Your task to perform on an android device: turn off airplane mode Image 0: 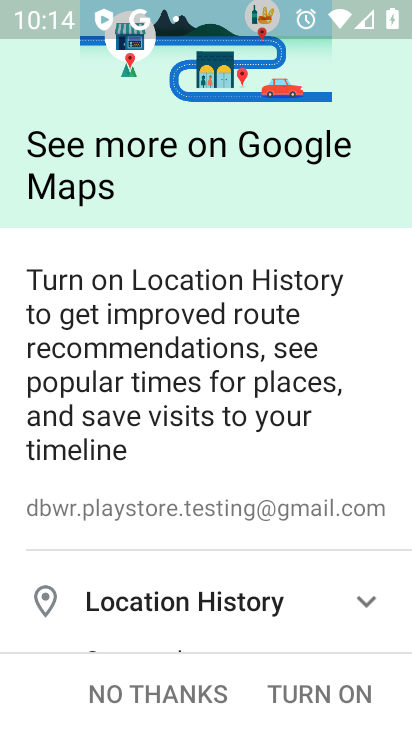
Step 0: press home button
Your task to perform on an android device: turn off airplane mode Image 1: 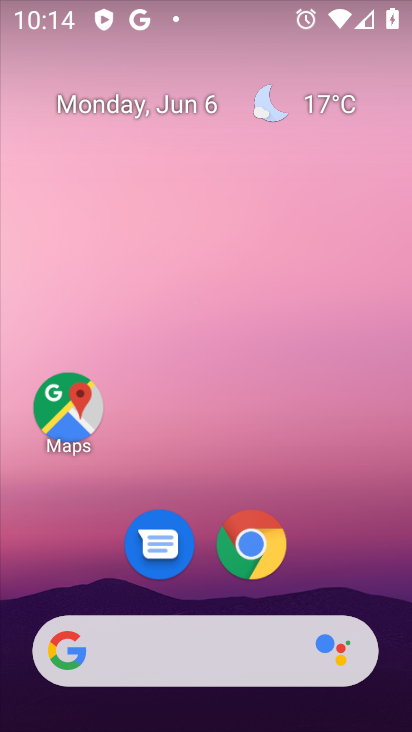
Step 1: drag from (54, 579) to (183, 93)
Your task to perform on an android device: turn off airplane mode Image 2: 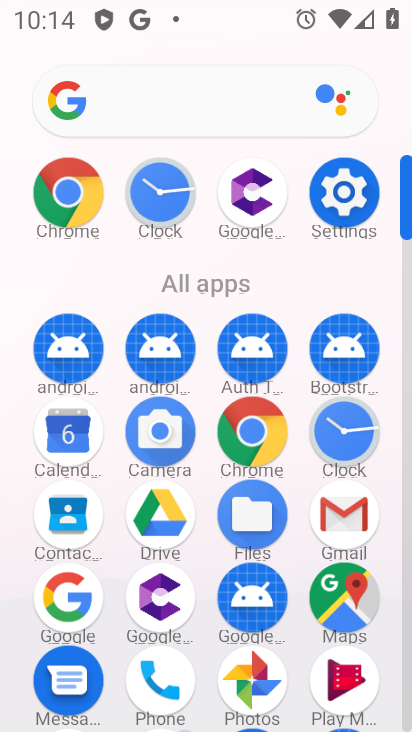
Step 2: drag from (239, 623) to (284, 303)
Your task to perform on an android device: turn off airplane mode Image 3: 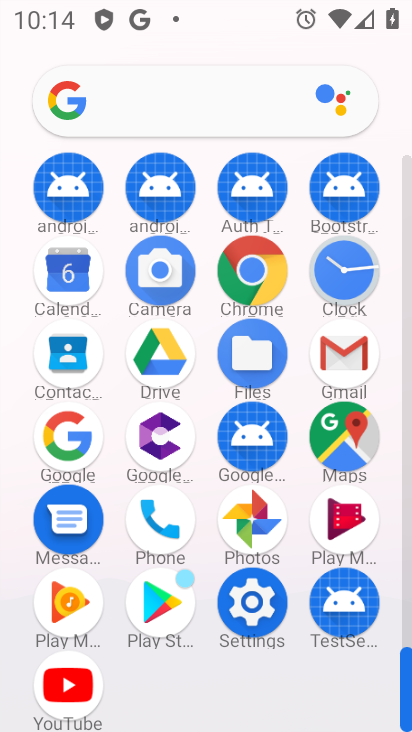
Step 3: click (244, 624)
Your task to perform on an android device: turn off airplane mode Image 4: 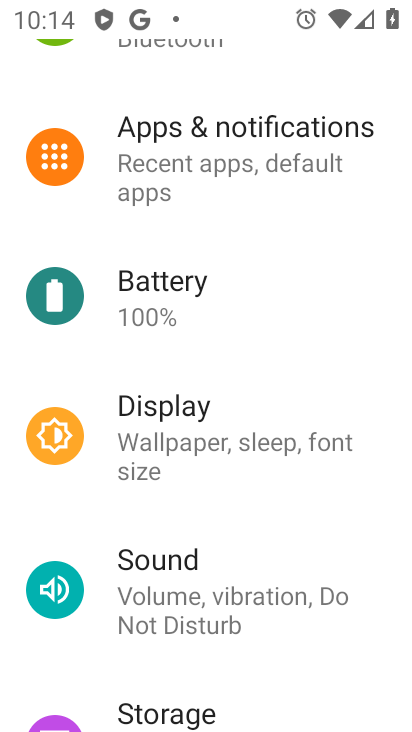
Step 4: drag from (172, 660) to (206, 628)
Your task to perform on an android device: turn off airplane mode Image 5: 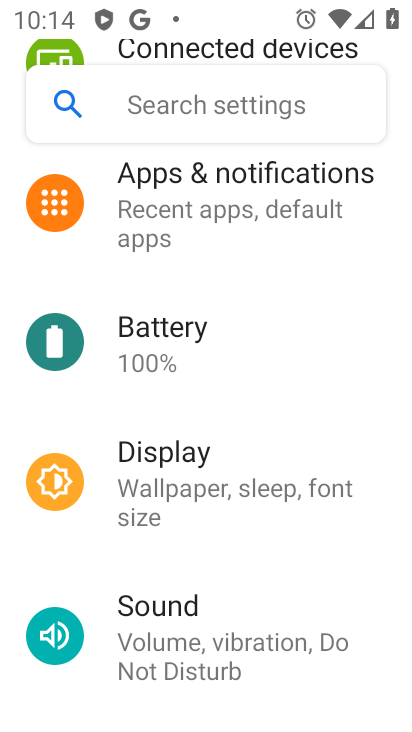
Step 5: drag from (261, 247) to (212, 650)
Your task to perform on an android device: turn off airplane mode Image 6: 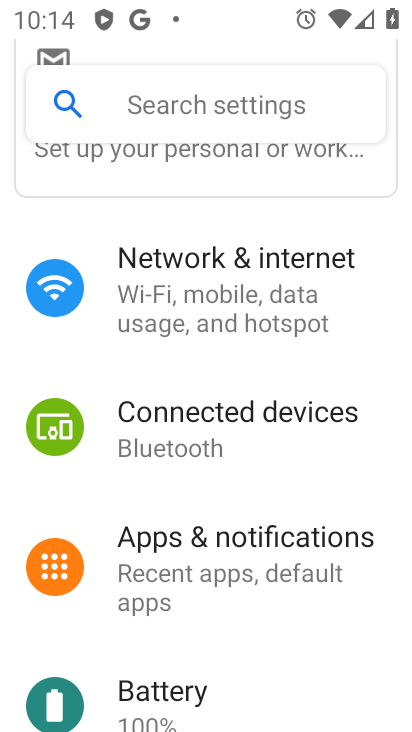
Step 6: click (241, 324)
Your task to perform on an android device: turn off airplane mode Image 7: 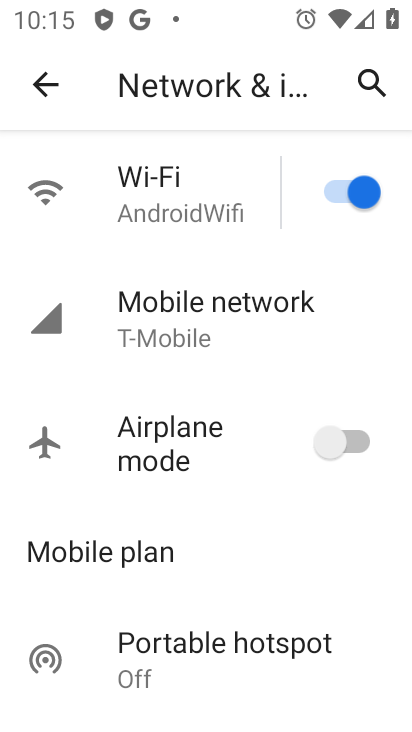
Step 7: task complete